Your task to perform on an android device: Go to privacy settings Image 0: 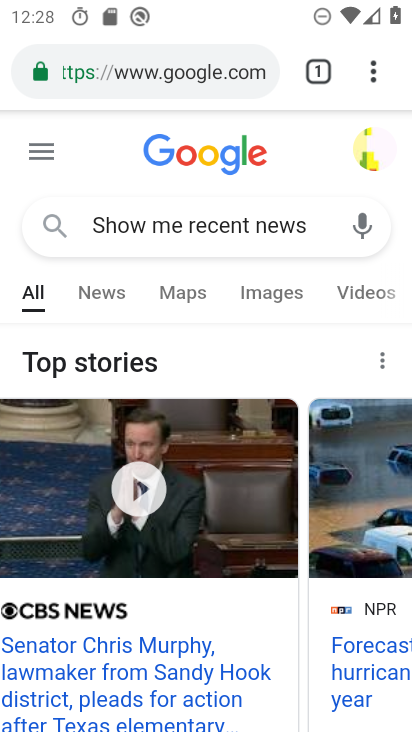
Step 0: drag from (371, 74) to (116, 557)
Your task to perform on an android device: Go to privacy settings Image 1: 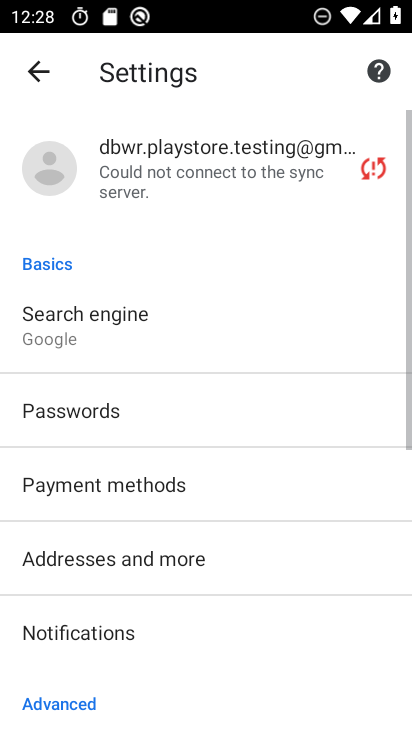
Step 1: drag from (200, 616) to (243, 269)
Your task to perform on an android device: Go to privacy settings Image 2: 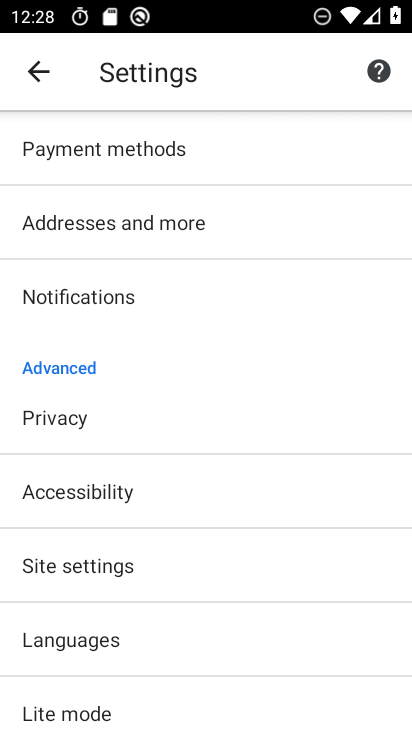
Step 2: click (89, 422)
Your task to perform on an android device: Go to privacy settings Image 3: 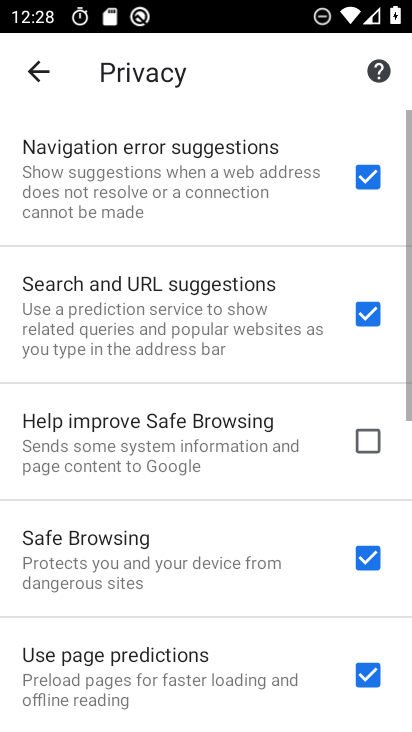
Step 3: task complete